Your task to perform on an android device: see sites visited before in the chrome app Image 0: 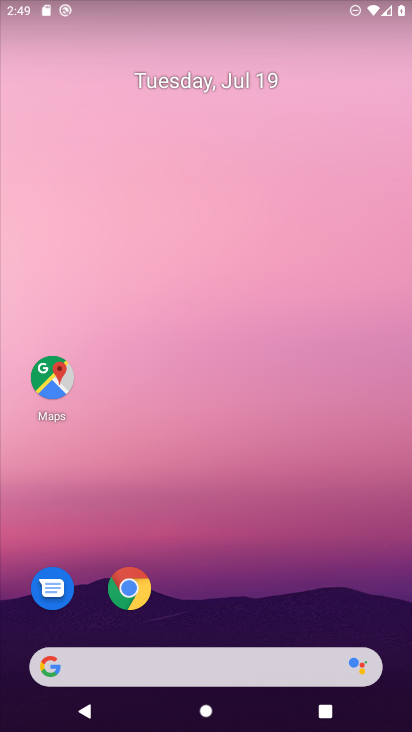
Step 0: click (196, 7)
Your task to perform on an android device: see sites visited before in the chrome app Image 1: 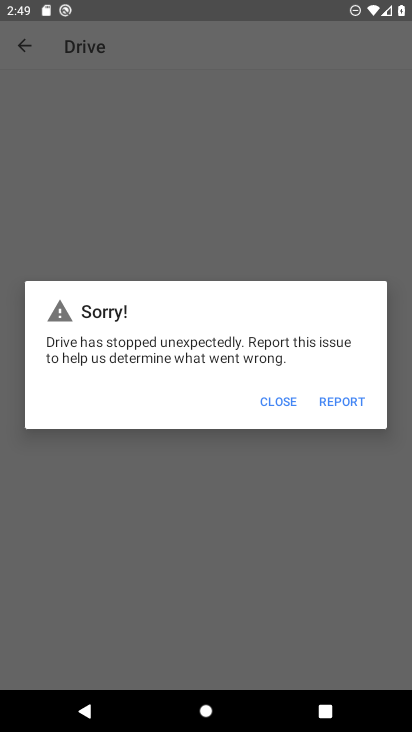
Step 1: click (279, 404)
Your task to perform on an android device: see sites visited before in the chrome app Image 2: 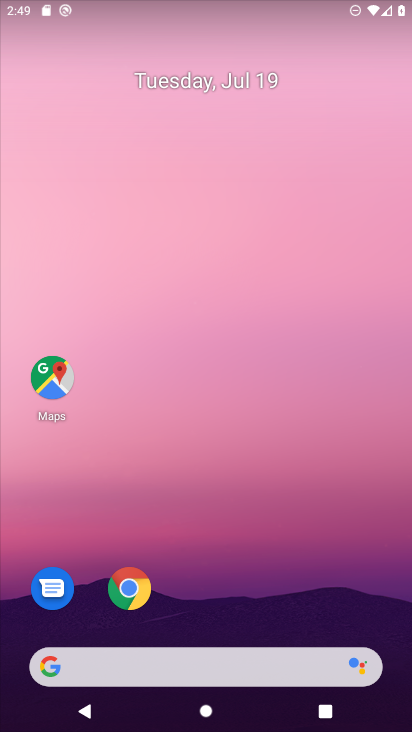
Step 2: drag from (195, 560) to (205, 35)
Your task to perform on an android device: see sites visited before in the chrome app Image 3: 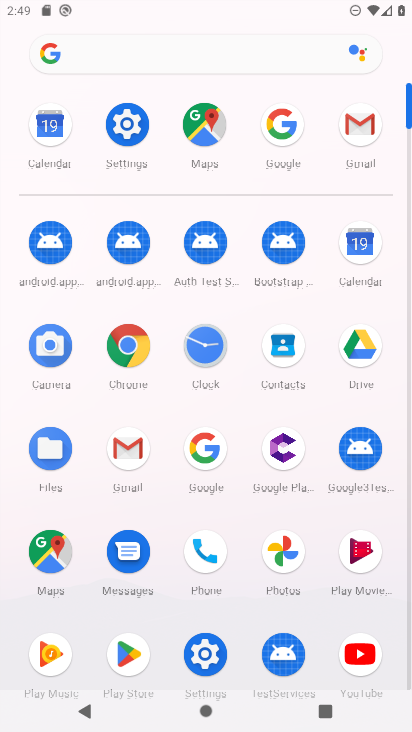
Step 3: click (134, 354)
Your task to perform on an android device: see sites visited before in the chrome app Image 4: 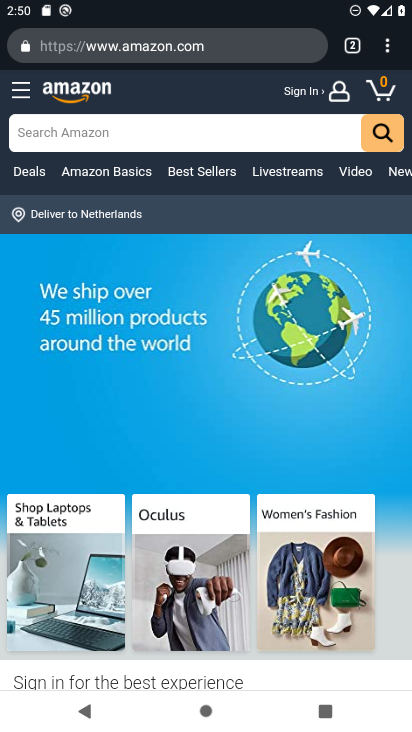
Step 4: click (385, 47)
Your task to perform on an android device: see sites visited before in the chrome app Image 5: 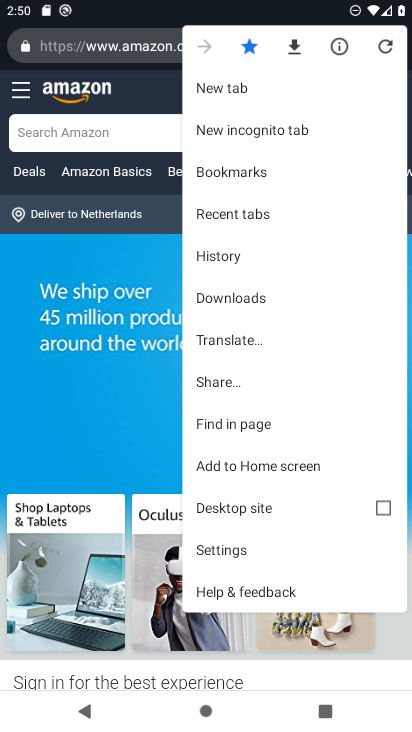
Step 5: click (225, 261)
Your task to perform on an android device: see sites visited before in the chrome app Image 6: 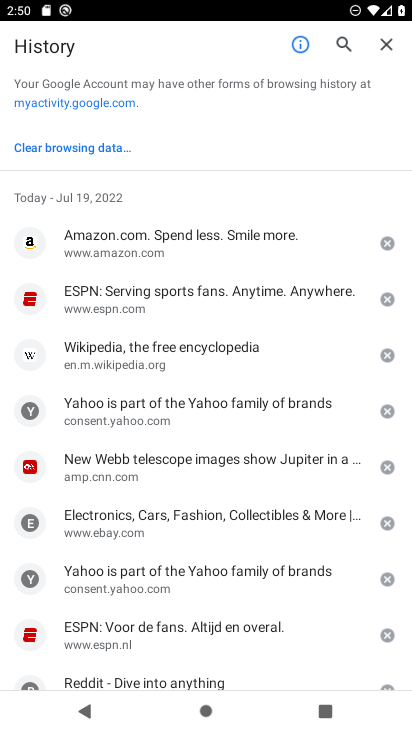
Step 6: task complete